Your task to perform on an android device: turn on the 12-hour format for clock Image 0: 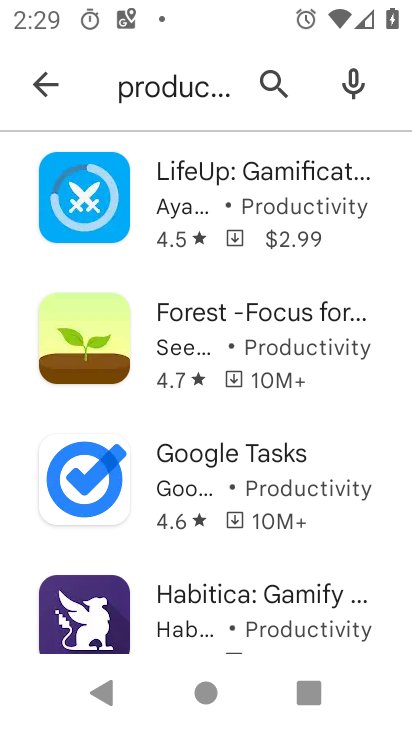
Step 0: press home button
Your task to perform on an android device: turn on the 12-hour format for clock Image 1: 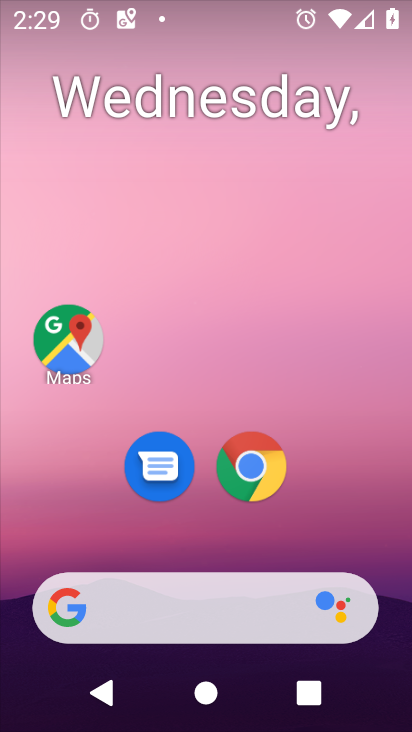
Step 1: click (62, 364)
Your task to perform on an android device: turn on the 12-hour format for clock Image 2: 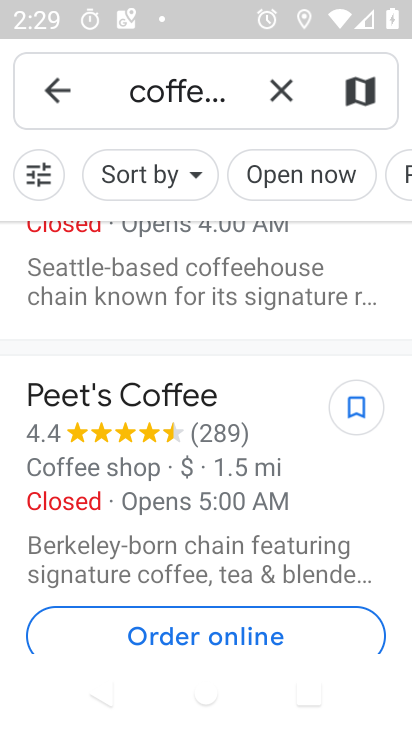
Step 2: click (269, 81)
Your task to perform on an android device: turn on the 12-hour format for clock Image 3: 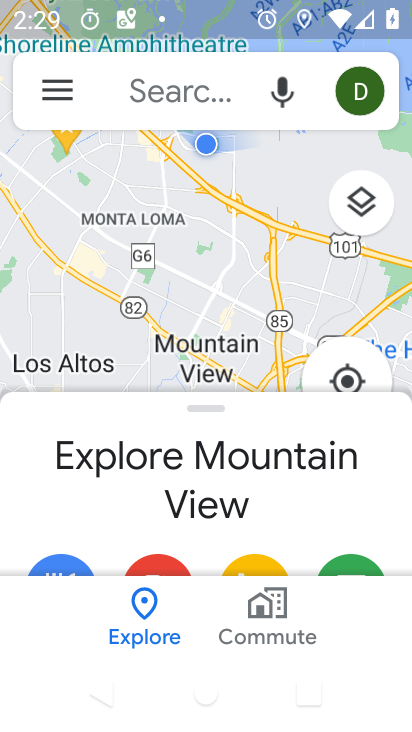
Step 3: press home button
Your task to perform on an android device: turn on the 12-hour format for clock Image 4: 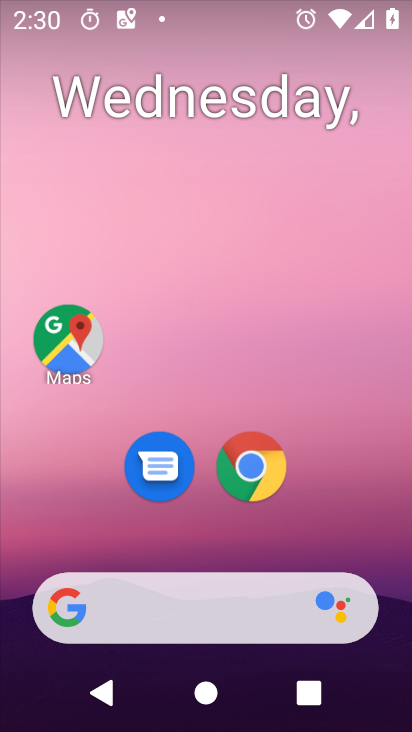
Step 4: drag from (336, 361) to (295, 4)
Your task to perform on an android device: turn on the 12-hour format for clock Image 5: 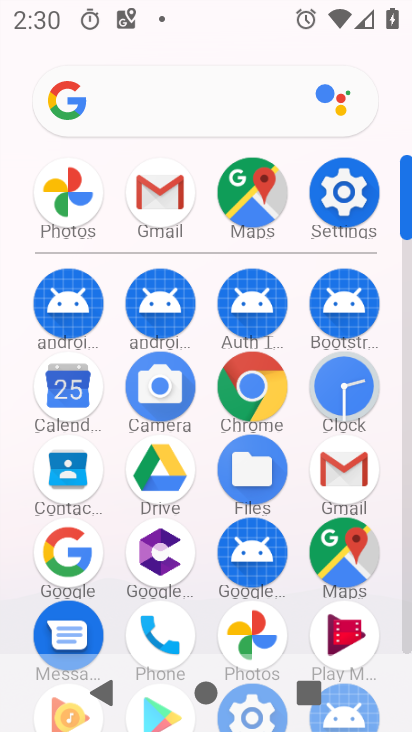
Step 5: click (352, 399)
Your task to perform on an android device: turn on the 12-hour format for clock Image 6: 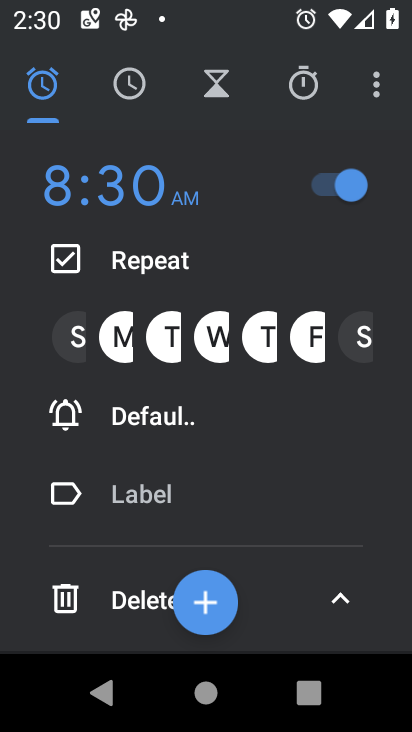
Step 6: click (365, 78)
Your task to perform on an android device: turn on the 12-hour format for clock Image 7: 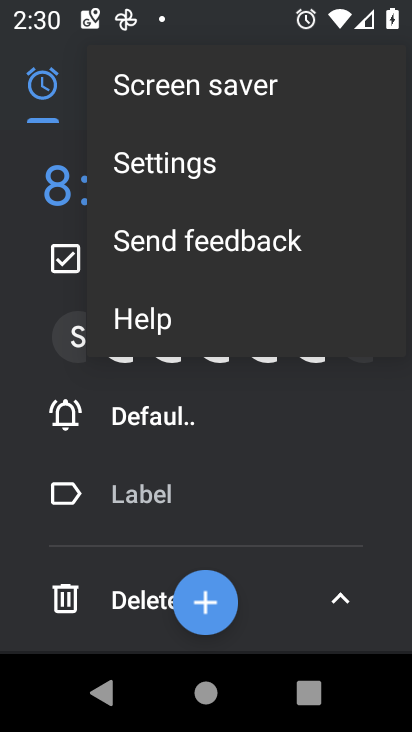
Step 7: click (239, 170)
Your task to perform on an android device: turn on the 12-hour format for clock Image 8: 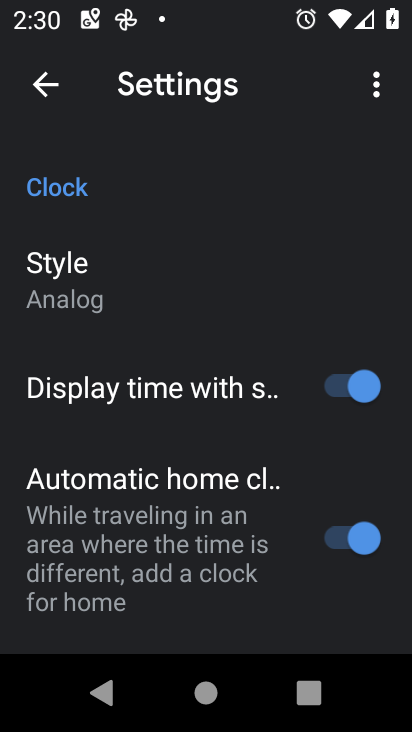
Step 8: drag from (181, 516) to (173, 166)
Your task to perform on an android device: turn on the 12-hour format for clock Image 9: 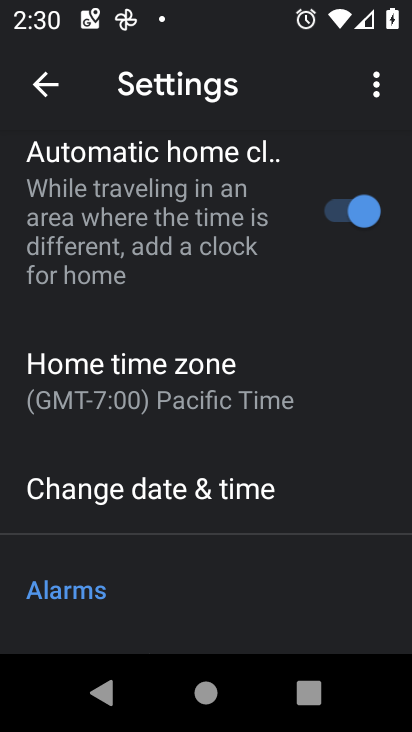
Step 9: drag from (185, 459) to (175, 281)
Your task to perform on an android device: turn on the 12-hour format for clock Image 10: 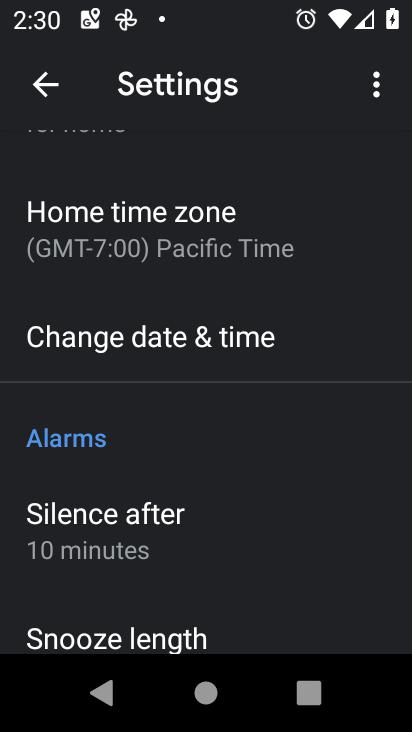
Step 10: click (196, 336)
Your task to perform on an android device: turn on the 12-hour format for clock Image 11: 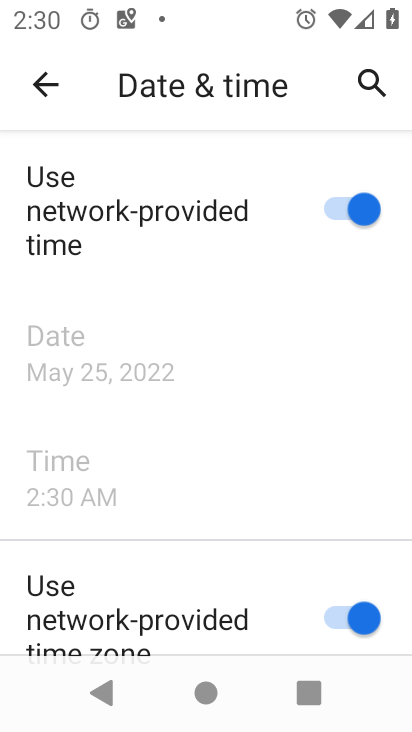
Step 11: task complete